Your task to perform on an android device: open app "AliExpress" Image 0: 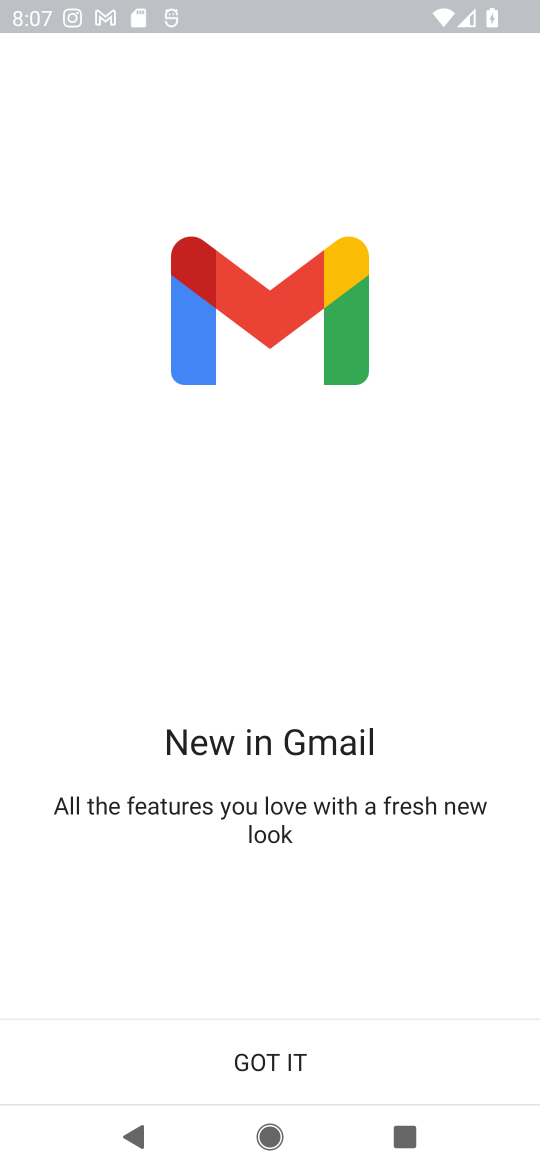
Step 0: press home button
Your task to perform on an android device: open app "AliExpress" Image 1: 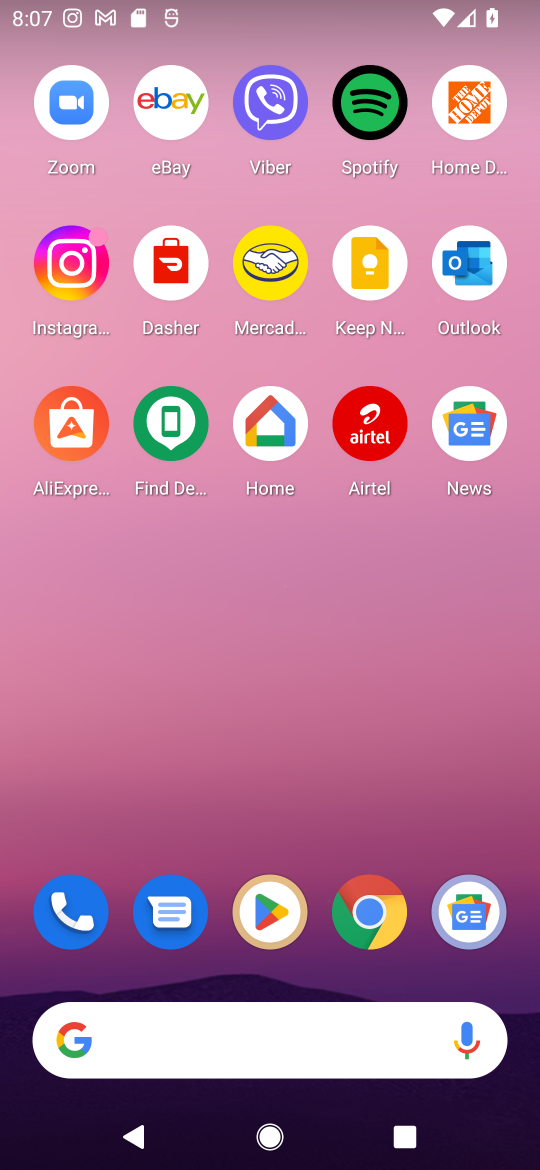
Step 1: click (273, 909)
Your task to perform on an android device: open app "AliExpress" Image 2: 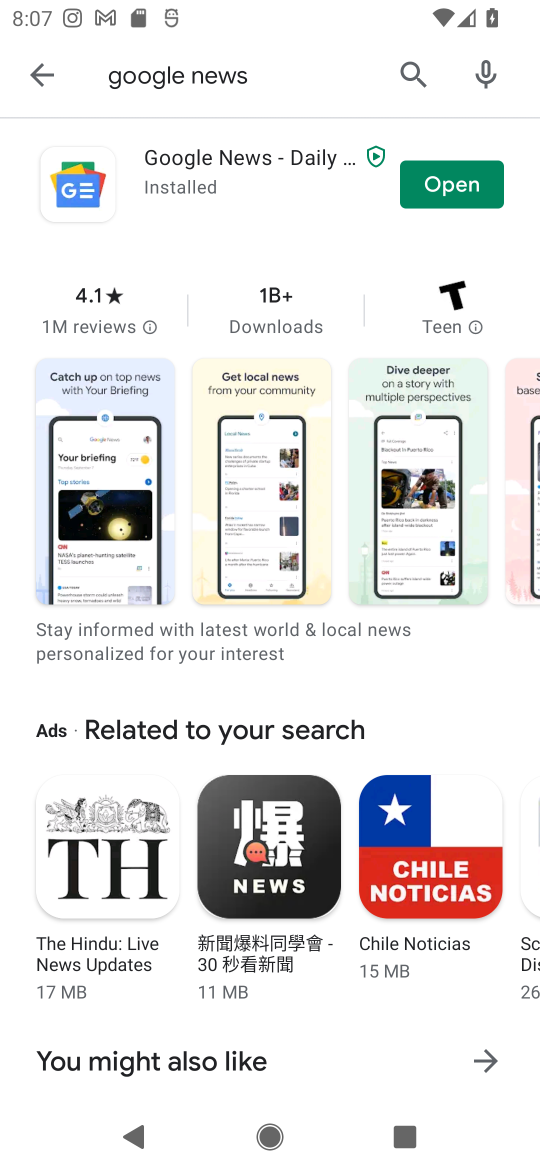
Step 2: click (401, 63)
Your task to perform on an android device: open app "AliExpress" Image 3: 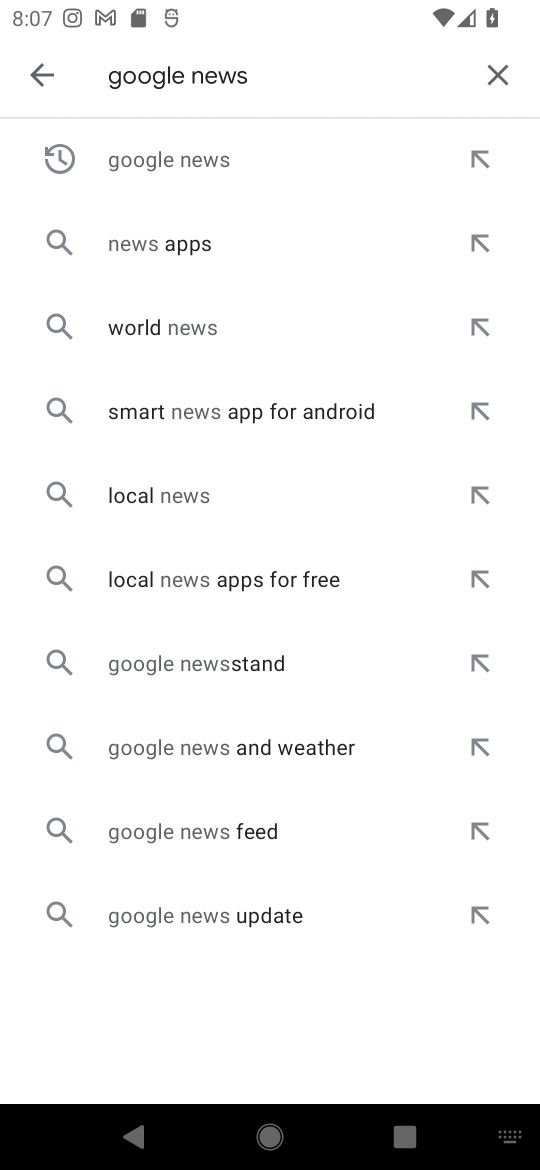
Step 3: click (496, 74)
Your task to perform on an android device: open app "AliExpress" Image 4: 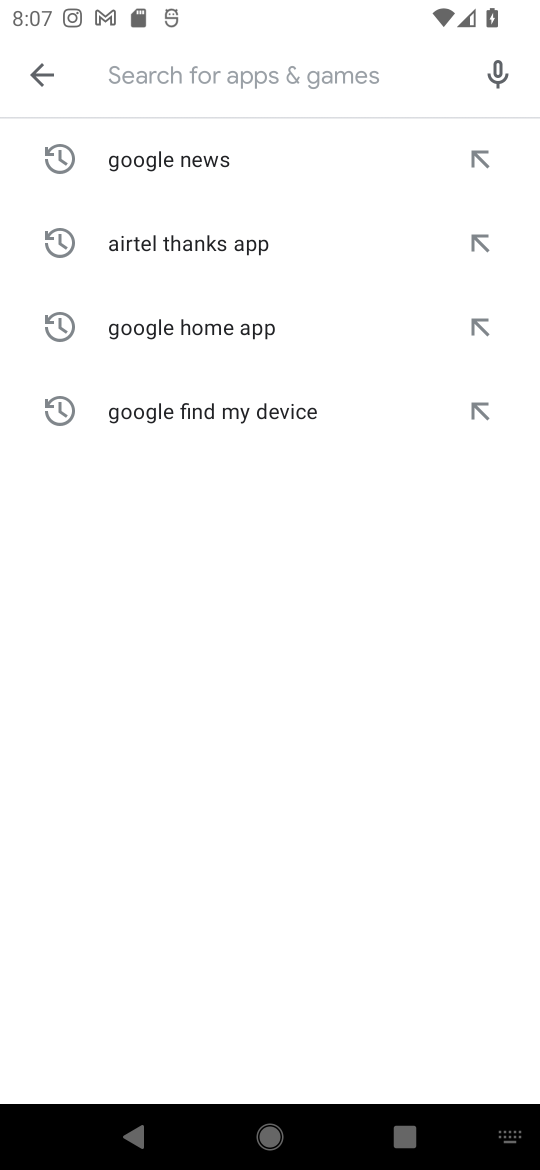
Step 4: type "AliExpress"
Your task to perform on an android device: open app "AliExpress" Image 5: 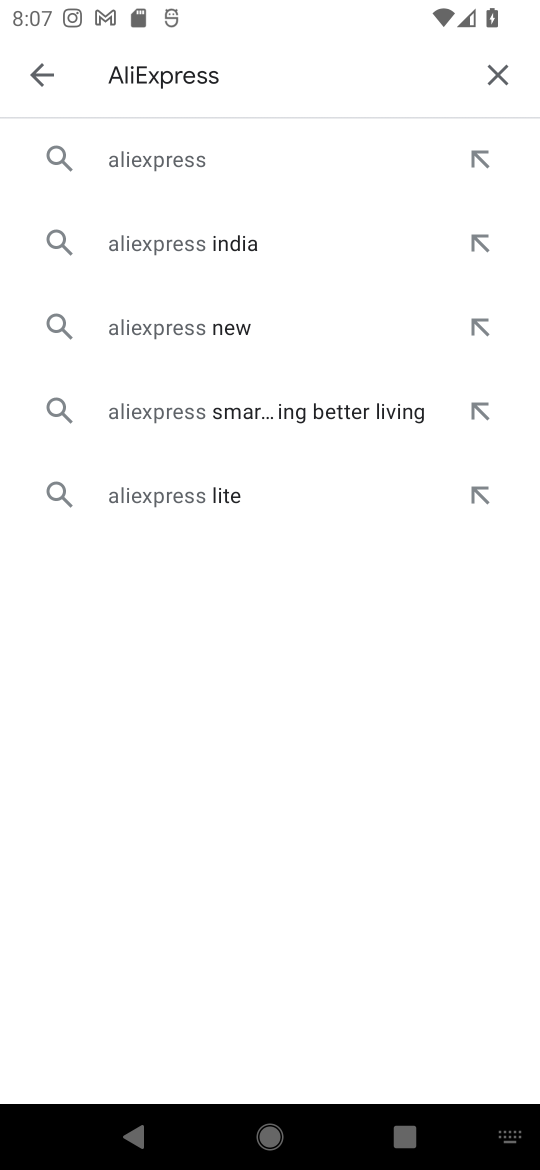
Step 5: click (171, 160)
Your task to perform on an android device: open app "AliExpress" Image 6: 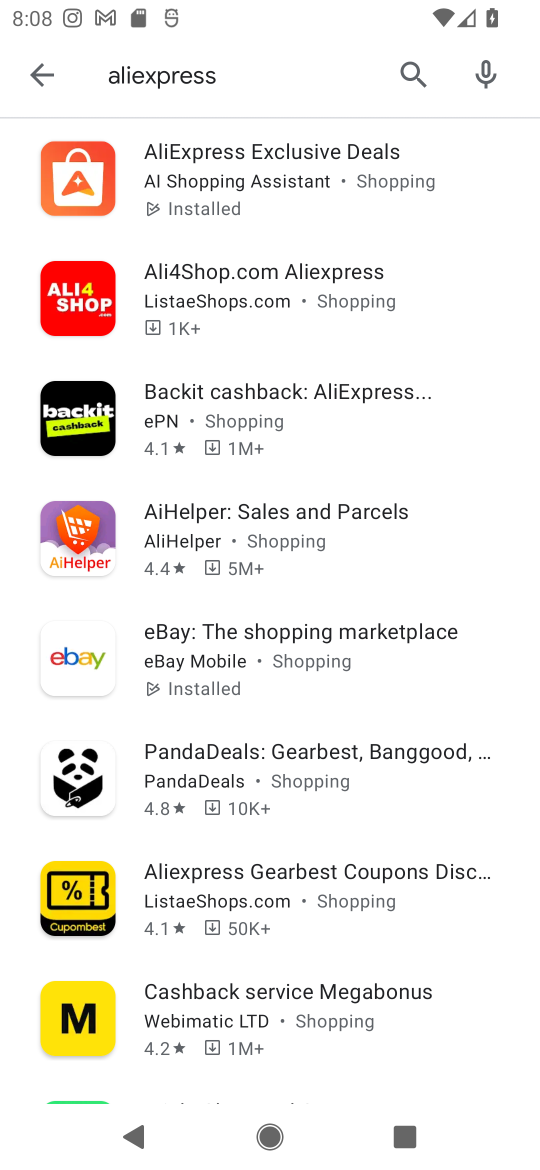
Step 6: click (152, 169)
Your task to perform on an android device: open app "AliExpress" Image 7: 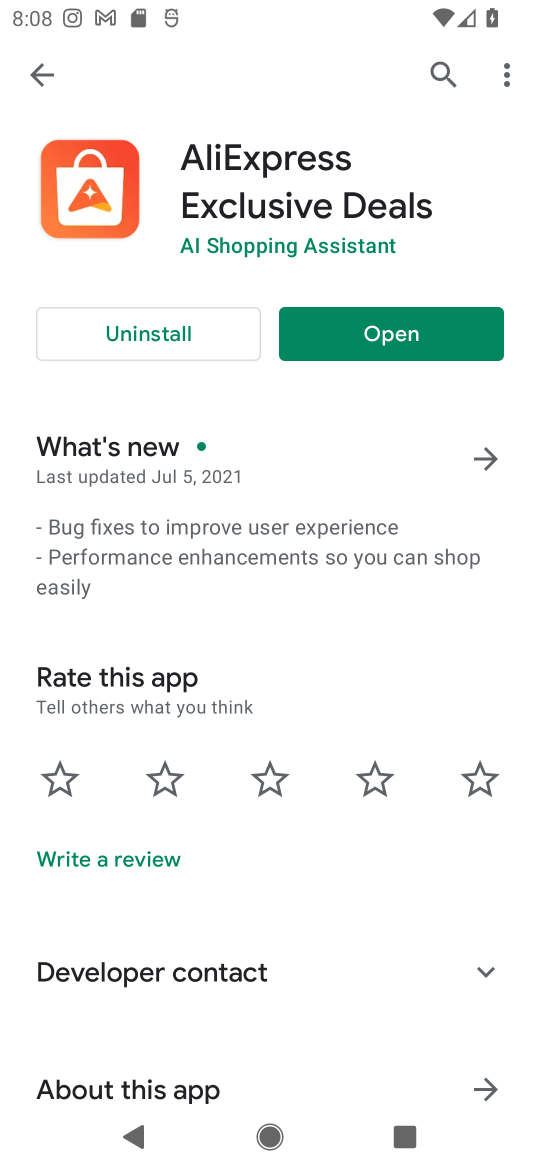
Step 7: click (447, 343)
Your task to perform on an android device: open app "AliExpress" Image 8: 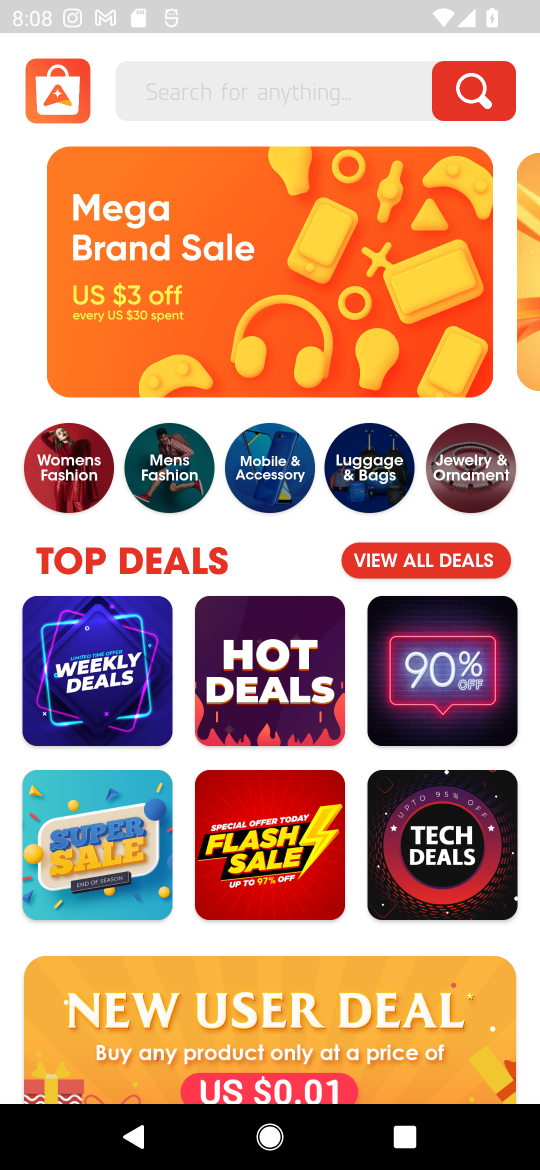
Step 8: task complete